Your task to perform on an android device: snooze an email in the gmail app Image 0: 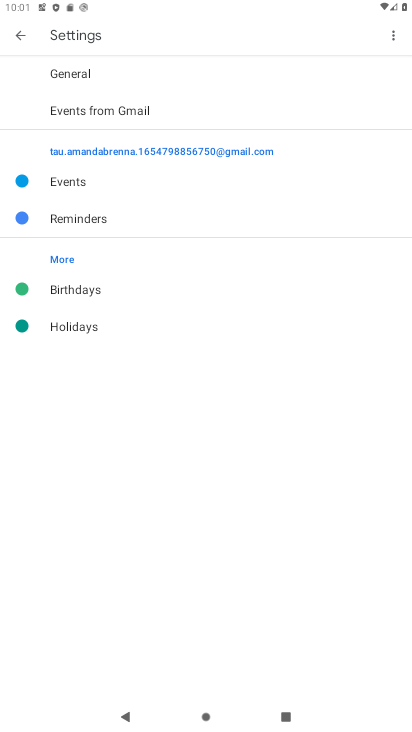
Step 0: press home button
Your task to perform on an android device: snooze an email in the gmail app Image 1: 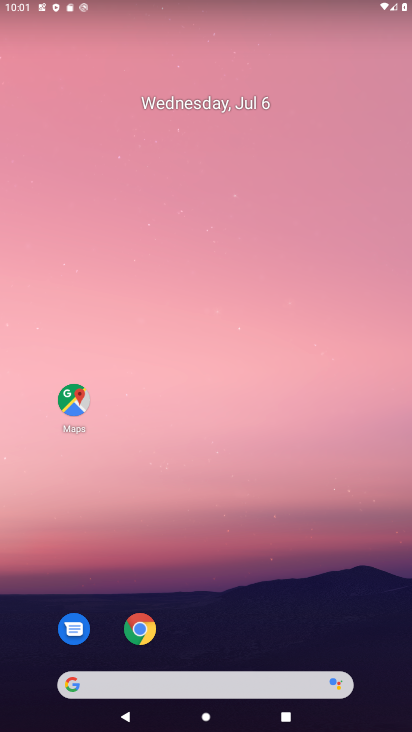
Step 1: drag from (201, 630) to (152, 117)
Your task to perform on an android device: snooze an email in the gmail app Image 2: 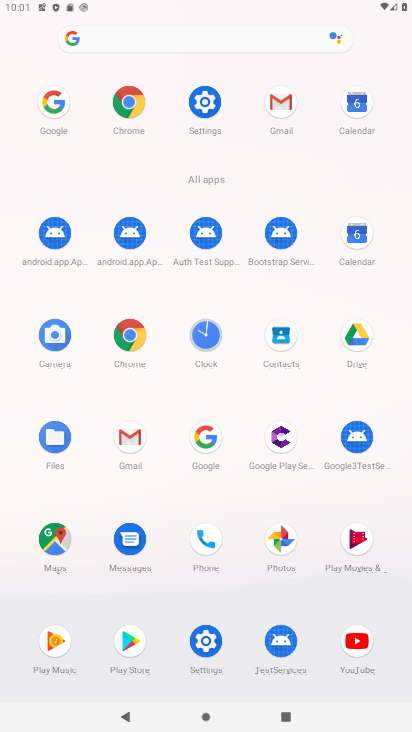
Step 2: click (283, 108)
Your task to perform on an android device: snooze an email in the gmail app Image 3: 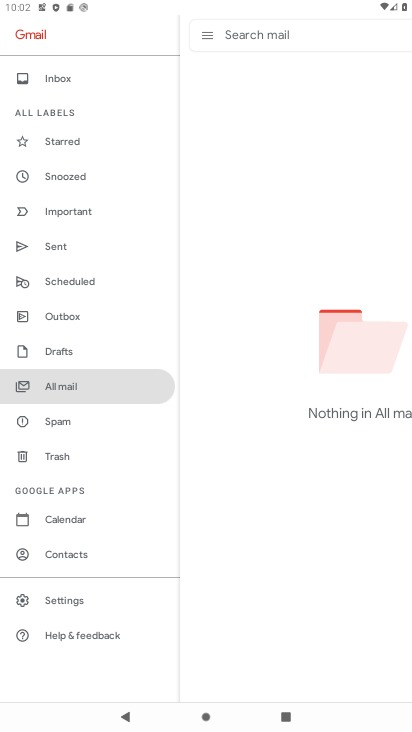
Step 3: task complete